Your task to perform on an android device: toggle location history Image 0: 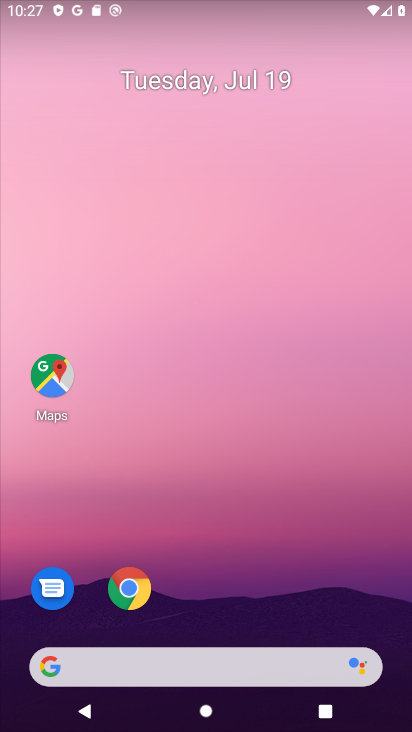
Step 0: click (49, 373)
Your task to perform on an android device: toggle location history Image 1: 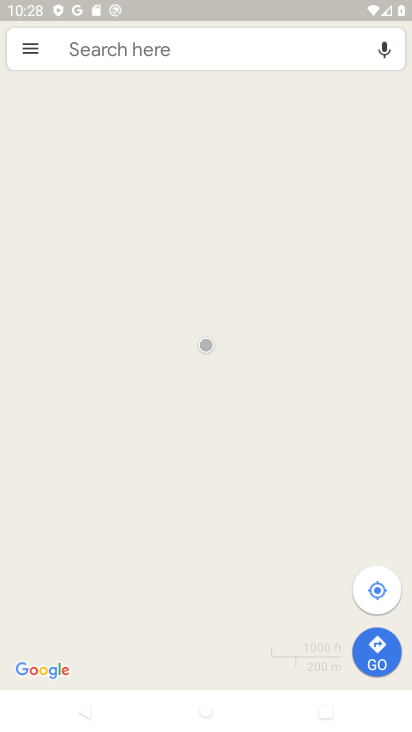
Step 1: click (28, 47)
Your task to perform on an android device: toggle location history Image 2: 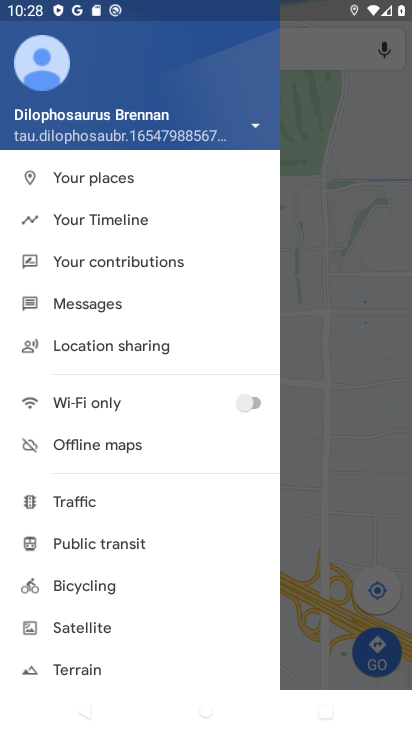
Step 2: drag from (155, 638) to (173, 276)
Your task to perform on an android device: toggle location history Image 3: 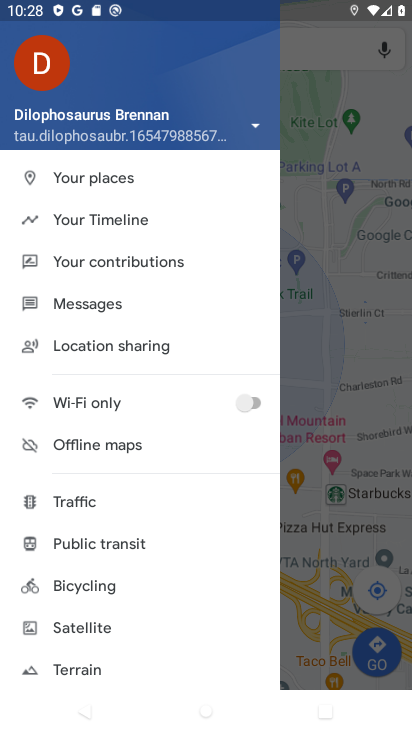
Step 3: drag from (199, 648) to (201, 271)
Your task to perform on an android device: toggle location history Image 4: 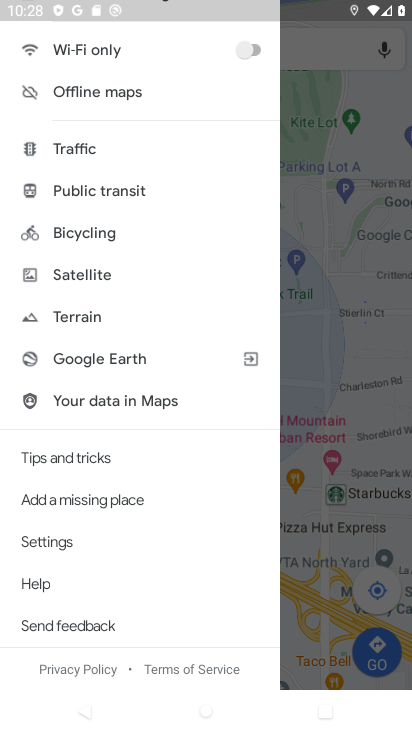
Step 4: click (56, 540)
Your task to perform on an android device: toggle location history Image 5: 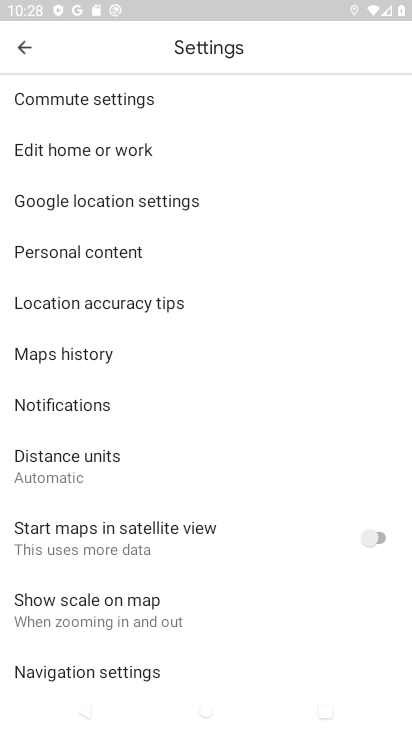
Step 5: click (68, 254)
Your task to perform on an android device: toggle location history Image 6: 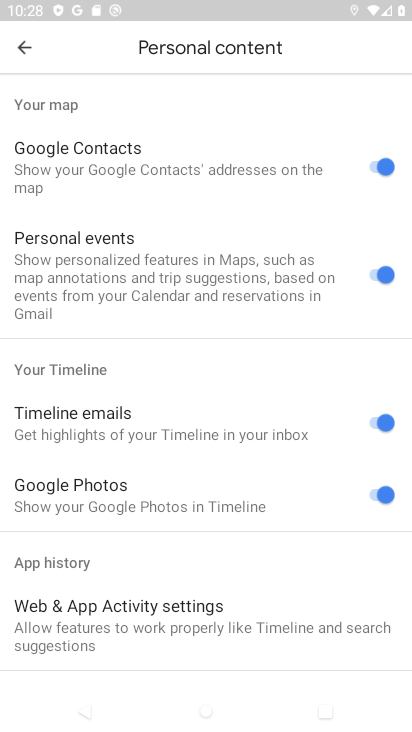
Step 6: drag from (277, 554) to (250, 128)
Your task to perform on an android device: toggle location history Image 7: 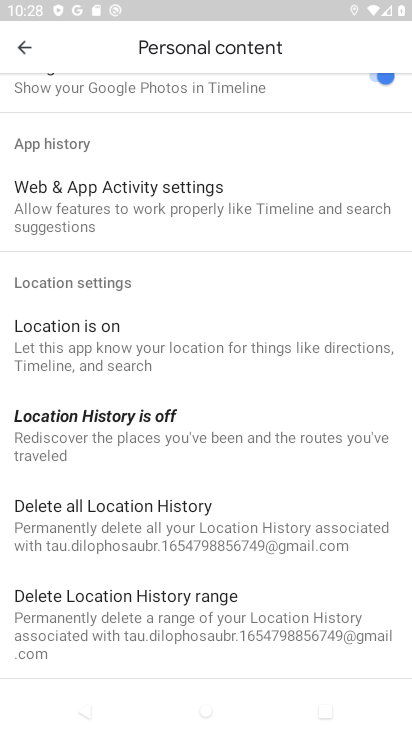
Step 7: click (101, 423)
Your task to perform on an android device: toggle location history Image 8: 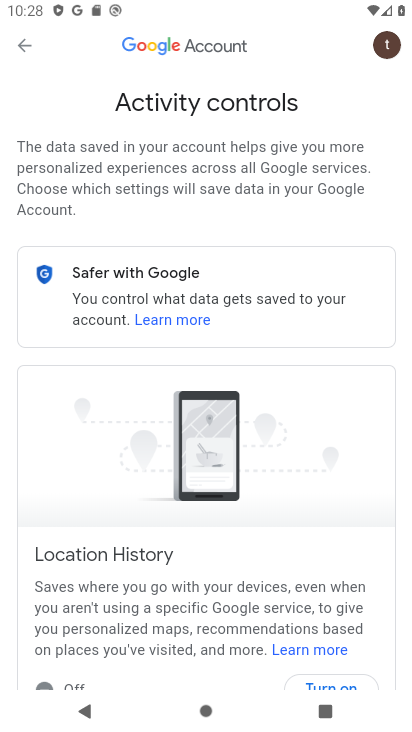
Step 8: drag from (265, 582) to (268, 248)
Your task to perform on an android device: toggle location history Image 9: 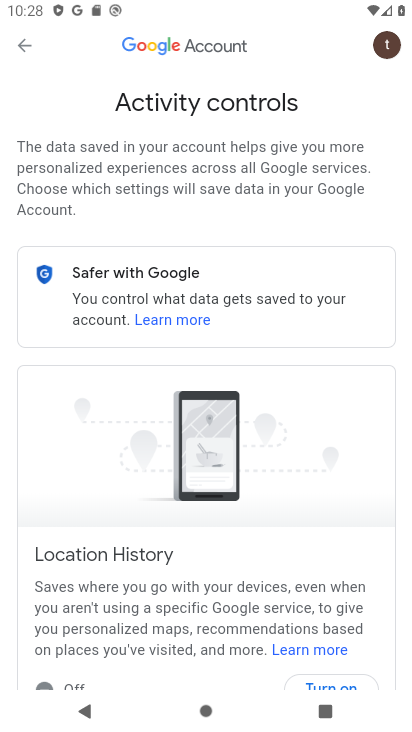
Step 9: drag from (293, 580) to (279, 189)
Your task to perform on an android device: toggle location history Image 10: 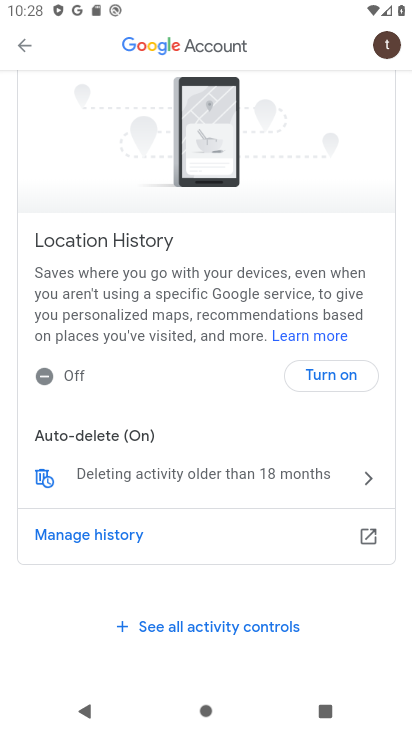
Step 10: click (328, 375)
Your task to perform on an android device: toggle location history Image 11: 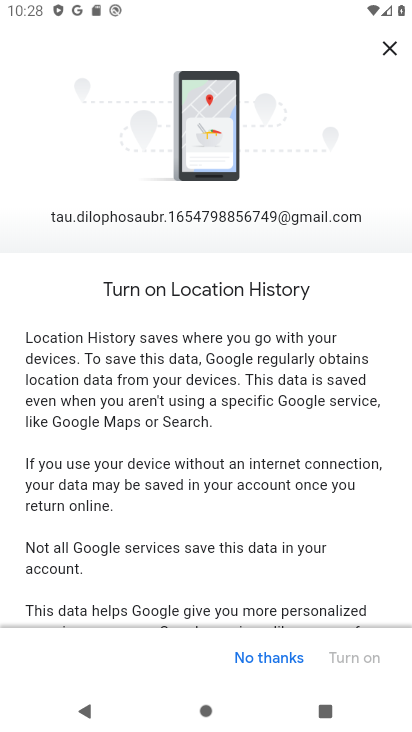
Step 11: drag from (312, 560) to (281, 269)
Your task to perform on an android device: toggle location history Image 12: 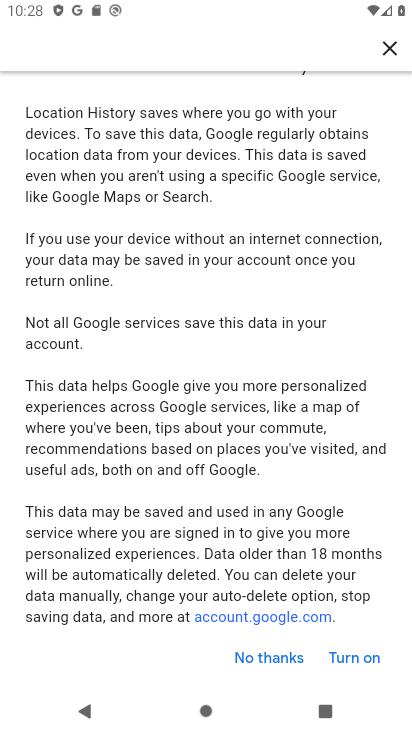
Step 12: click (358, 658)
Your task to perform on an android device: toggle location history Image 13: 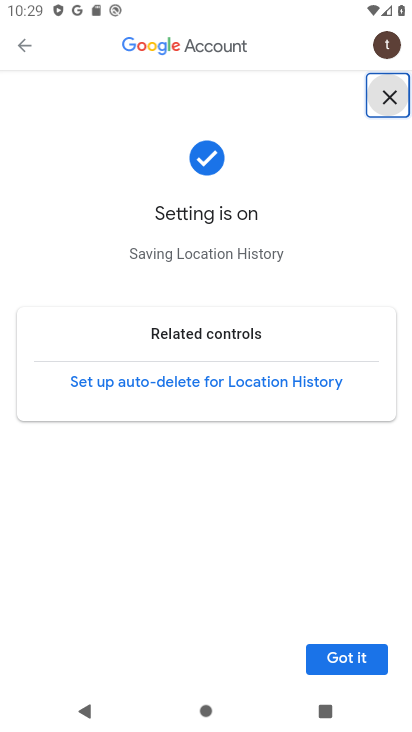
Step 13: click (348, 659)
Your task to perform on an android device: toggle location history Image 14: 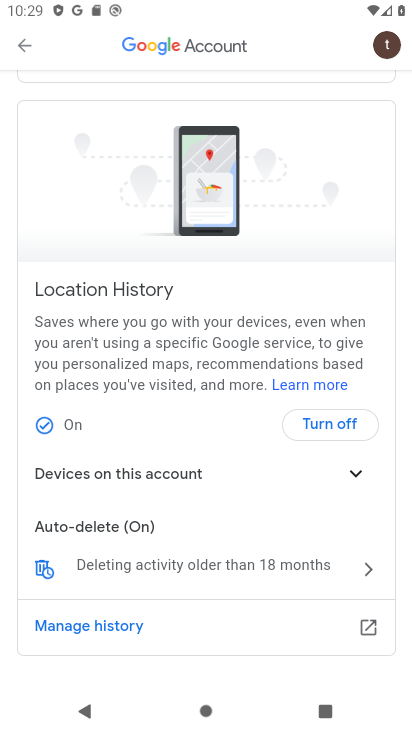
Step 14: task complete